Your task to perform on an android device: Open ESPN.com Image 0: 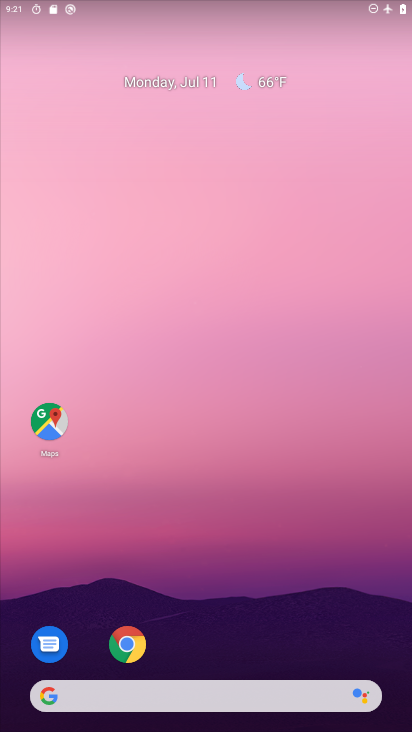
Step 0: drag from (277, 534) to (305, 137)
Your task to perform on an android device: Open ESPN.com Image 1: 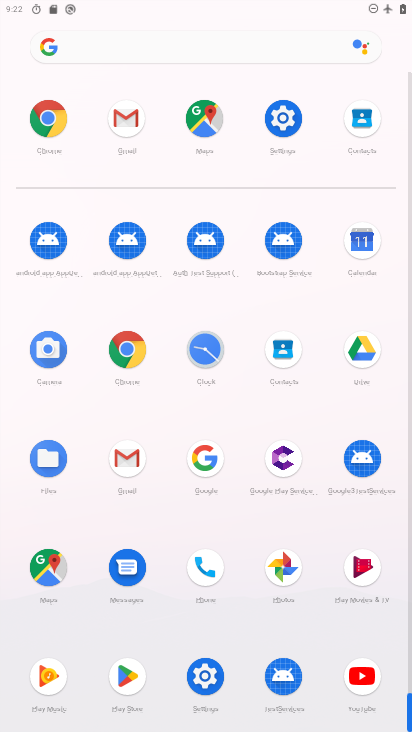
Step 1: click (127, 347)
Your task to perform on an android device: Open ESPN.com Image 2: 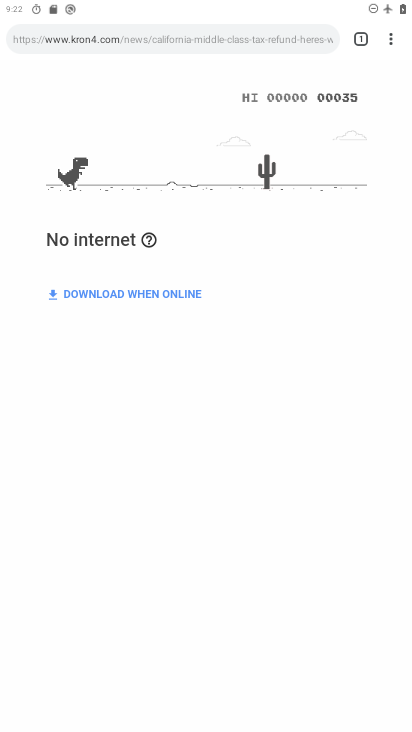
Step 2: click (183, 36)
Your task to perform on an android device: Open ESPN.com Image 3: 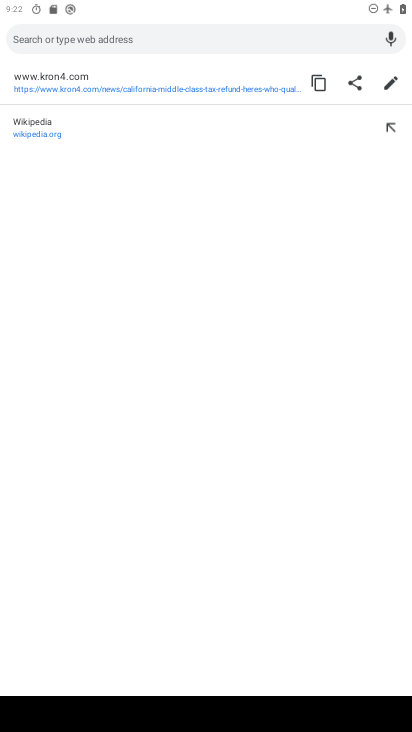
Step 3: type "espn.com"
Your task to perform on an android device: Open ESPN.com Image 4: 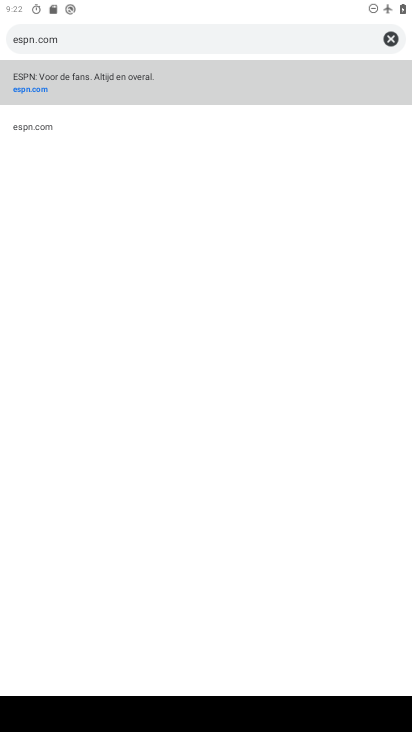
Step 4: click (34, 86)
Your task to perform on an android device: Open ESPN.com Image 5: 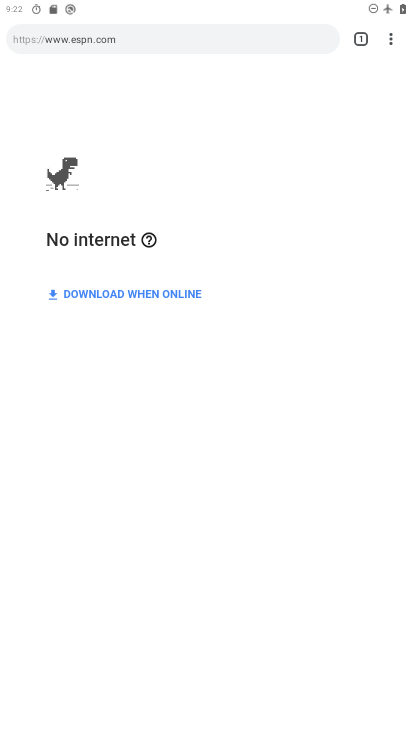
Step 5: task complete